Your task to perform on an android device: Open Youtube and go to the subscriptions tab Image 0: 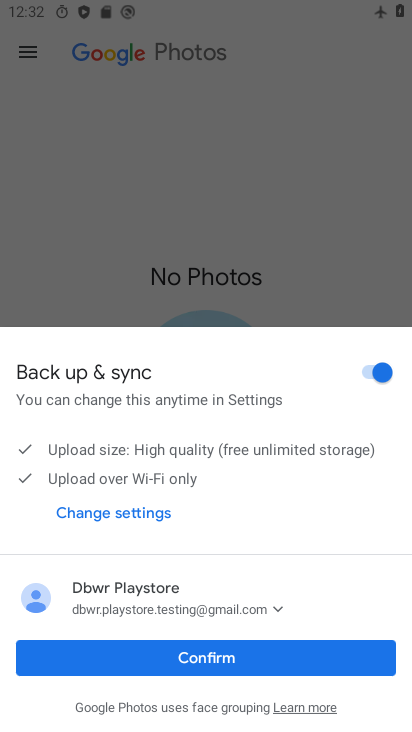
Step 0: press home button
Your task to perform on an android device: Open Youtube and go to the subscriptions tab Image 1: 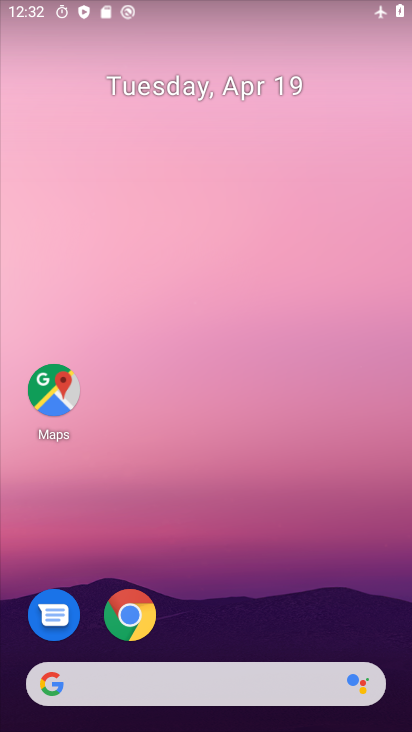
Step 1: drag from (375, 617) to (370, 111)
Your task to perform on an android device: Open Youtube and go to the subscriptions tab Image 2: 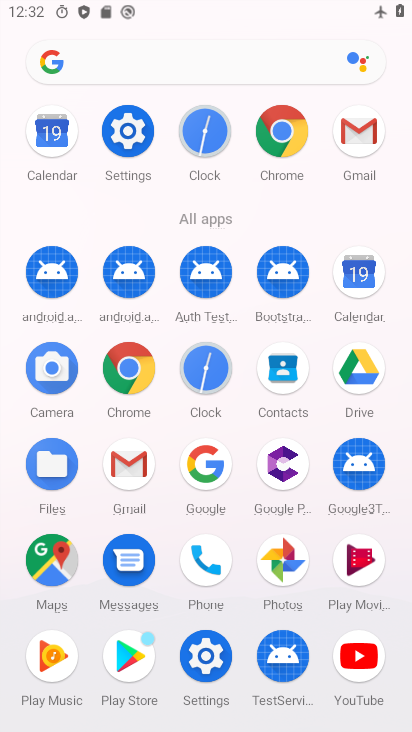
Step 2: click (363, 651)
Your task to perform on an android device: Open Youtube and go to the subscriptions tab Image 3: 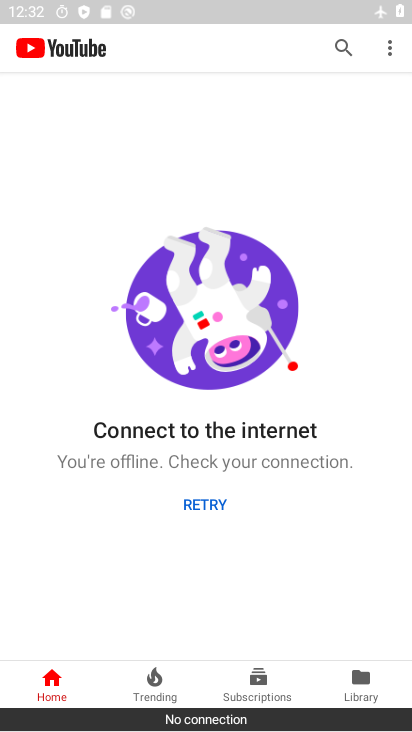
Step 3: click (259, 677)
Your task to perform on an android device: Open Youtube and go to the subscriptions tab Image 4: 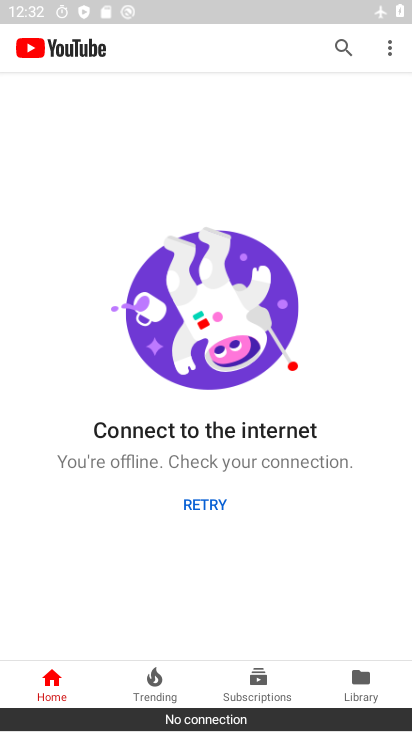
Step 4: click (256, 686)
Your task to perform on an android device: Open Youtube and go to the subscriptions tab Image 5: 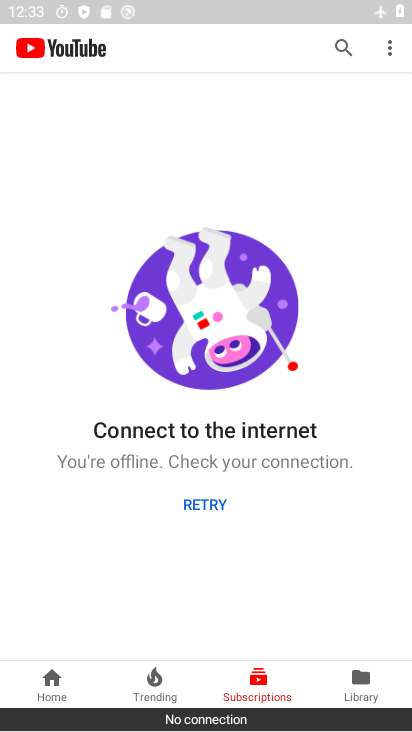
Step 5: task complete